Your task to perform on an android device: Clear all items from cart on newegg.com. Search for razer blackwidow on newegg.com, select the first entry, and add it to the cart. Image 0: 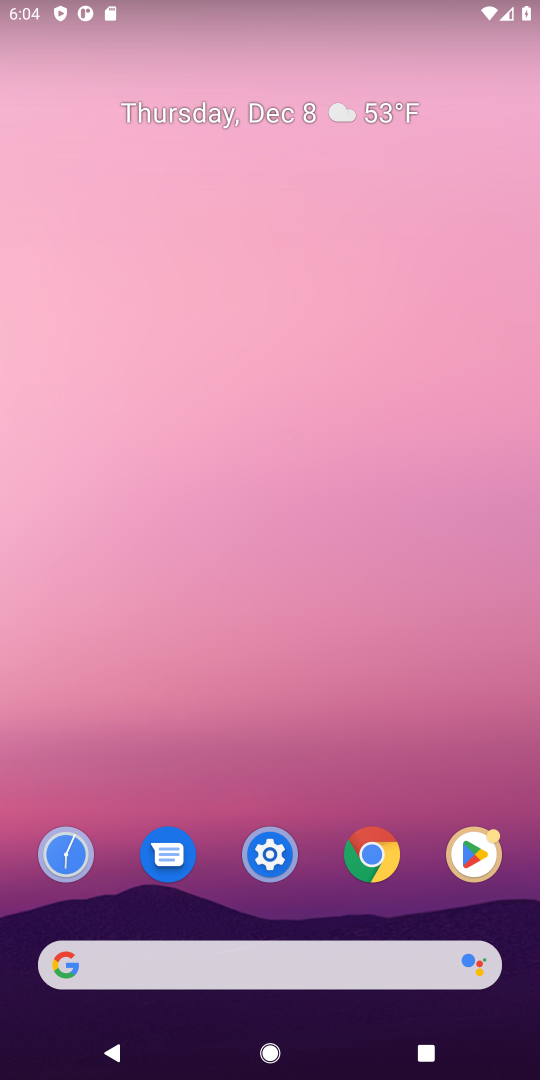
Step 0: click (109, 968)
Your task to perform on an android device: Clear all items from cart on newegg.com. Search for razer blackwidow on newegg.com, select the first entry, and add it to the cart. Image 1: 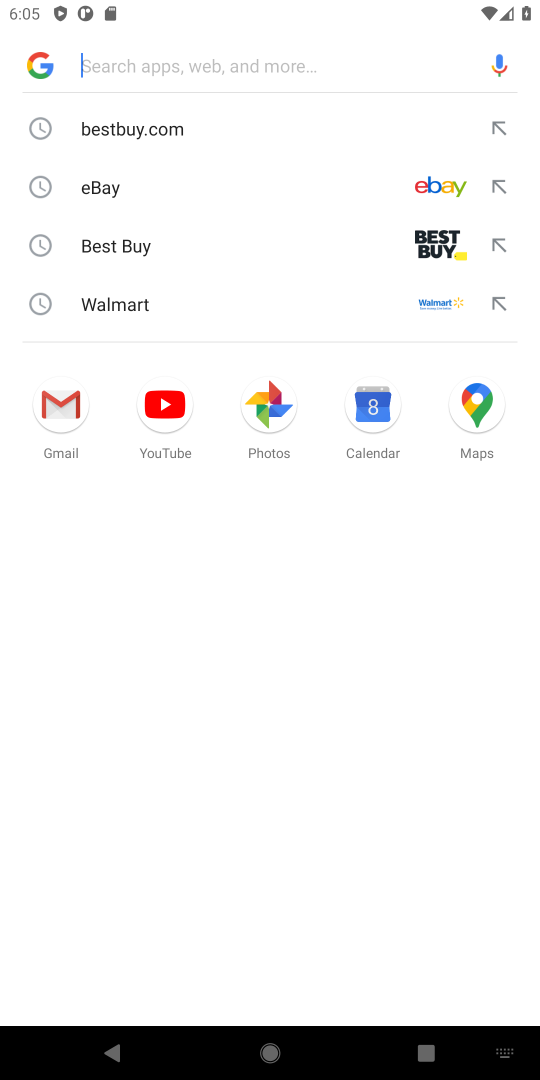
Step 1: type "newegg.com"
Your task to perform on an android device: Clear all items from cart on newegg.com. Search for razer blackwidow on newegg.com, select the first entry, and add it to the cart. Image 2: 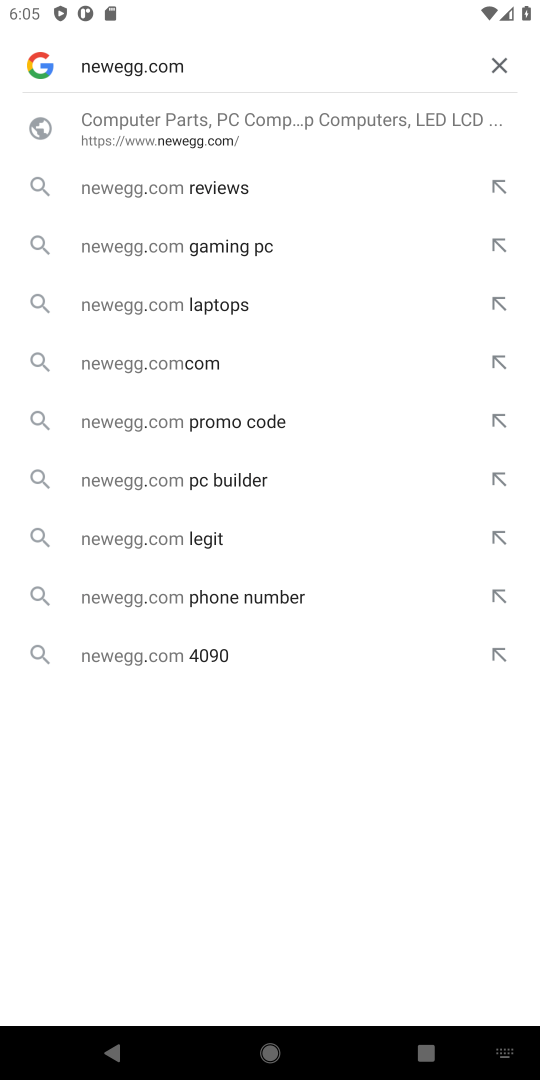
Step 2: press enter
Your task to perform on an android device: Clear all items from cart on newegg.com. Search for razer blackwidow on newegg.com, select the first entry, and add it to the cart. Image 3: 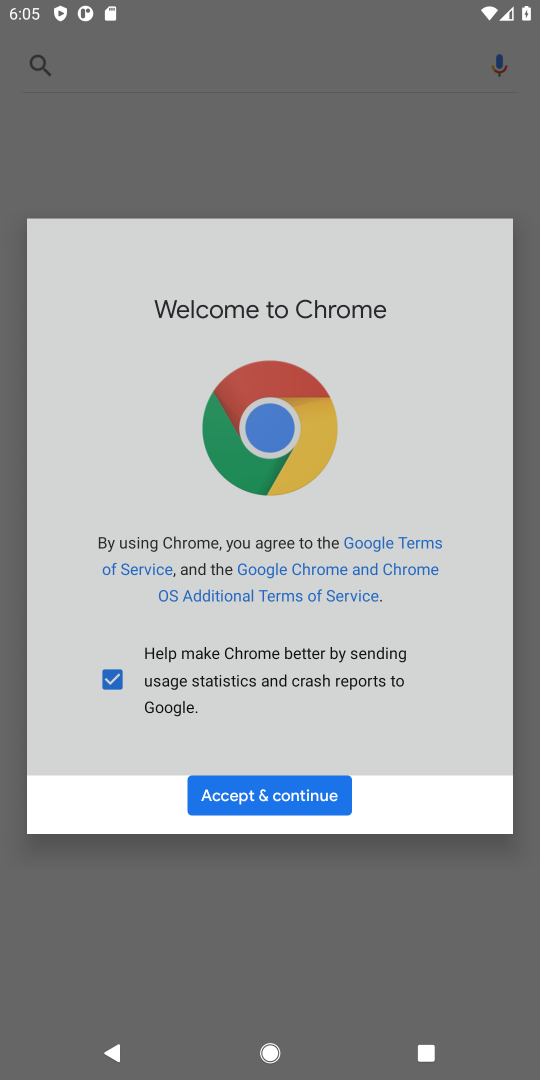
Step 3: click (284, 810)
Your task to perform on an android device: Clear all items from cart on newegg.com. Search for razer blackwidow on newegg.com, select the first entry, and add it to the cart. Image 4: 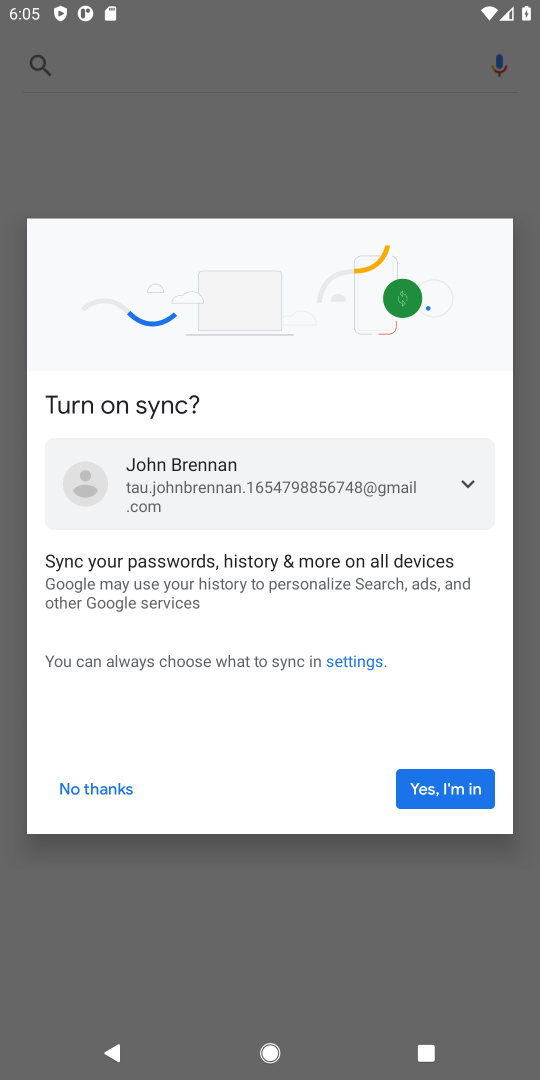
Step 4: click (428, 787)
Your task to perform on an android device: Clear all items from cart on newegg.com. Search for razer blackwidow on newegg.com, select the first entry, and add it to the cart. Image 5: 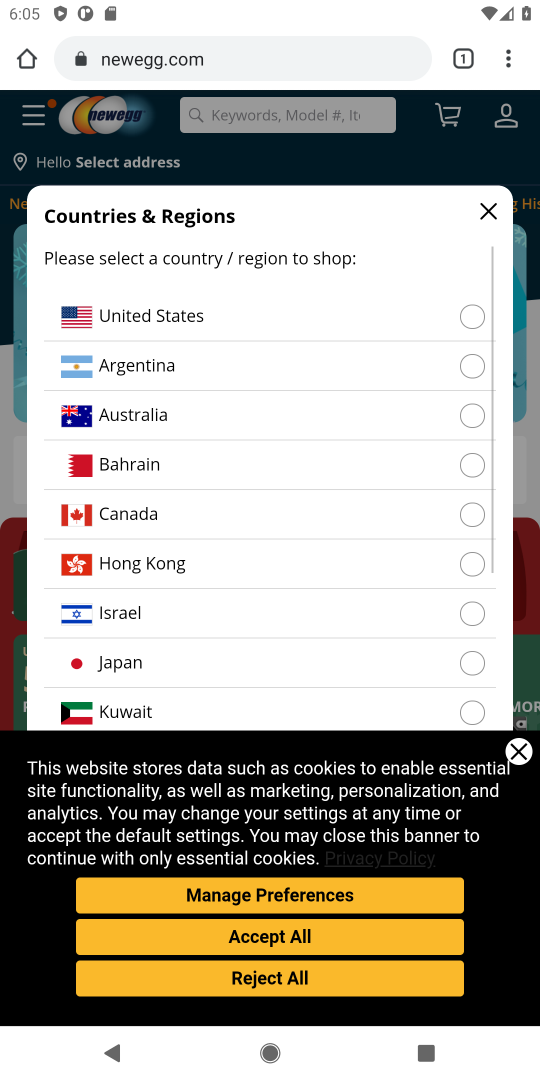
Step 5: click (522, 752)
Your task to perform on an android device: Clear all items from cart on newegg.com. Search for razer blackwidow on newegg.com, select the first entry, and add it to the cart. Image 6: 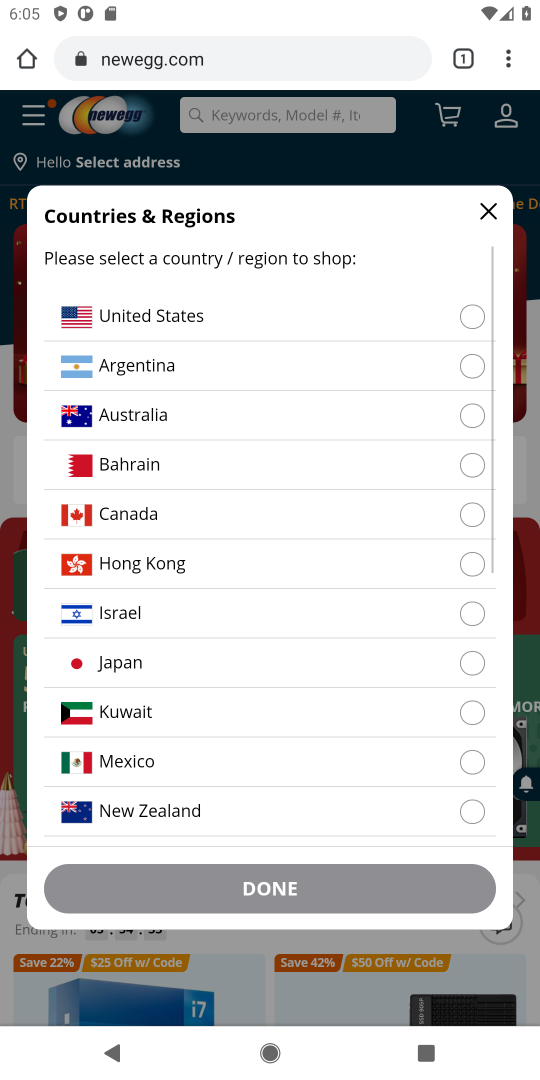
Step 6: click (491, 203)
Your task to perform on an android device: Clear all items from cart on newegg.com. Search for razer blackwidow on newegg.com, select the first entry, and add it to the cart. Image 7: 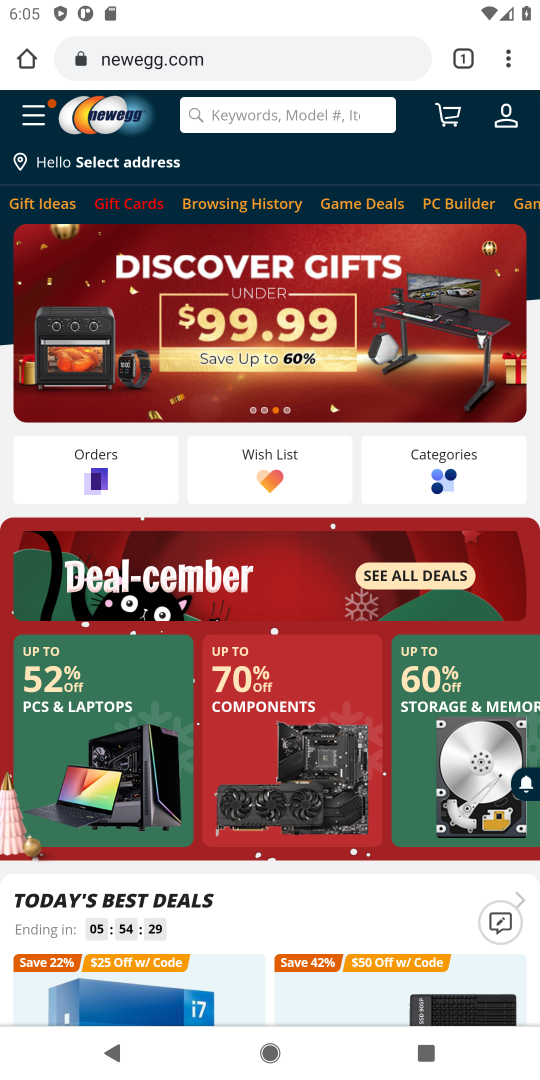
Step 7: click (442, 113)
Your task to perform on an android device: Clear all items from cart on newegg.com. Search for razer blackwidow on newegg.com, select the first entry, and add it to the cart. Image 8: 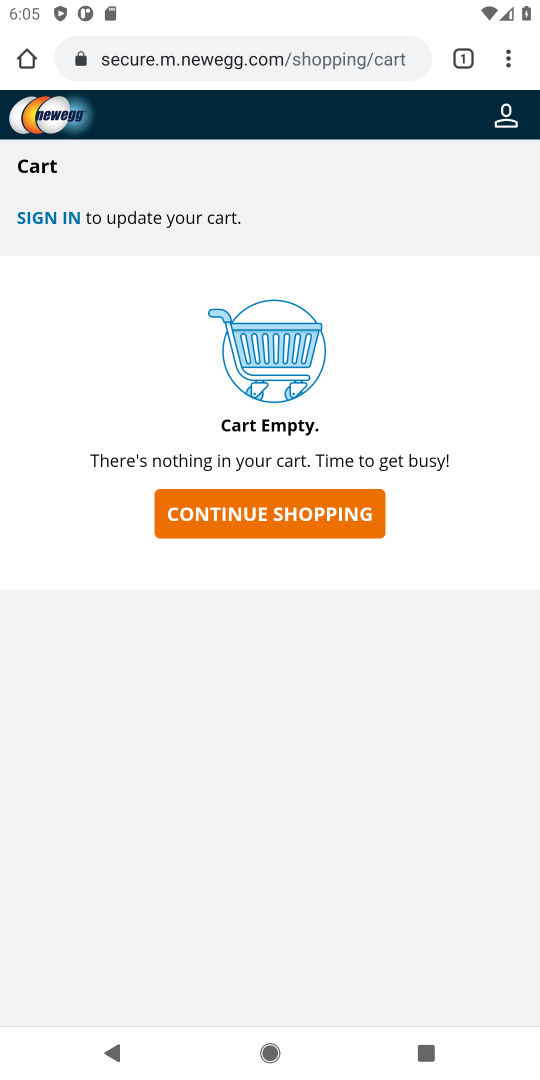
Step 8: press back button
Your task to perform on an android device: Clear all items from cart on newegg.com. Search for razer blackwidow on newegg.com, select the first entry, and add it to the cart. Image 9: 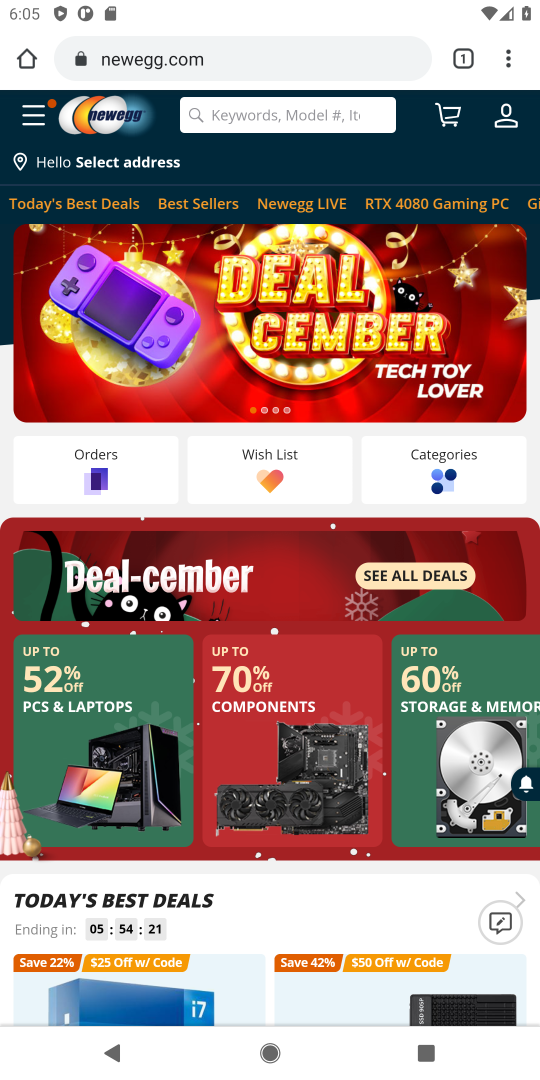
Step 9: click (220, 114)
Your task to perform on an android device: Clear all items from cart on newegg.com. Search for razer blackwidow on newegg.com, select the first entry, and add it to the cart. Image 10: 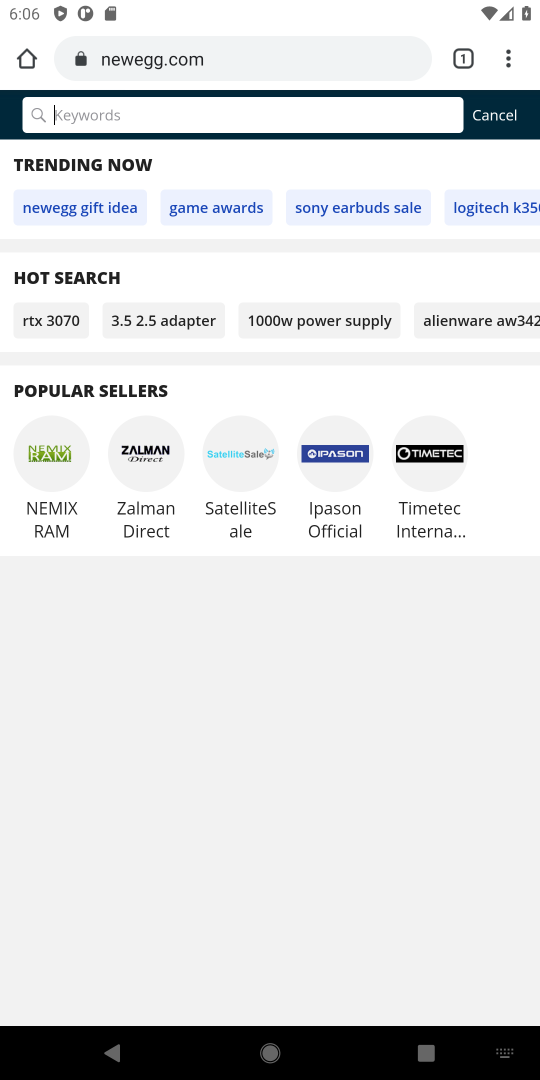
Step 10: press enter
Your task to perform on an android device: Clear all items from cart on newegg.com. Search for razer blackwidow on newegg.com, select the first entry, and add it to the cart. Image 11: 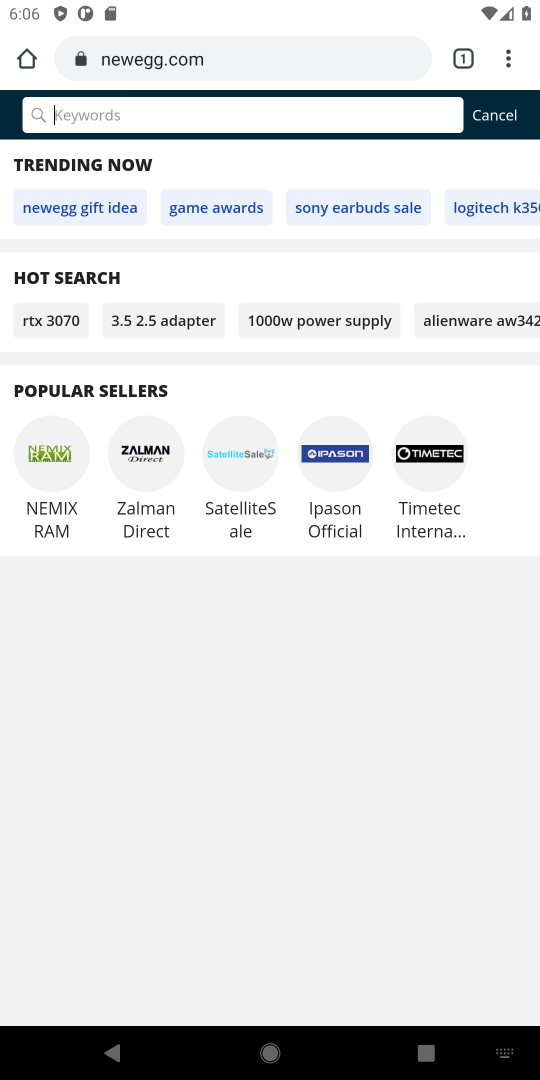
Step 11: type "razer blackwidow"
Your task to perform on an android device: Clear all items from cart on newegg.com. Search for razer blackwidow on newegg.com, select the first entry, and add it to the cart. Image 12: 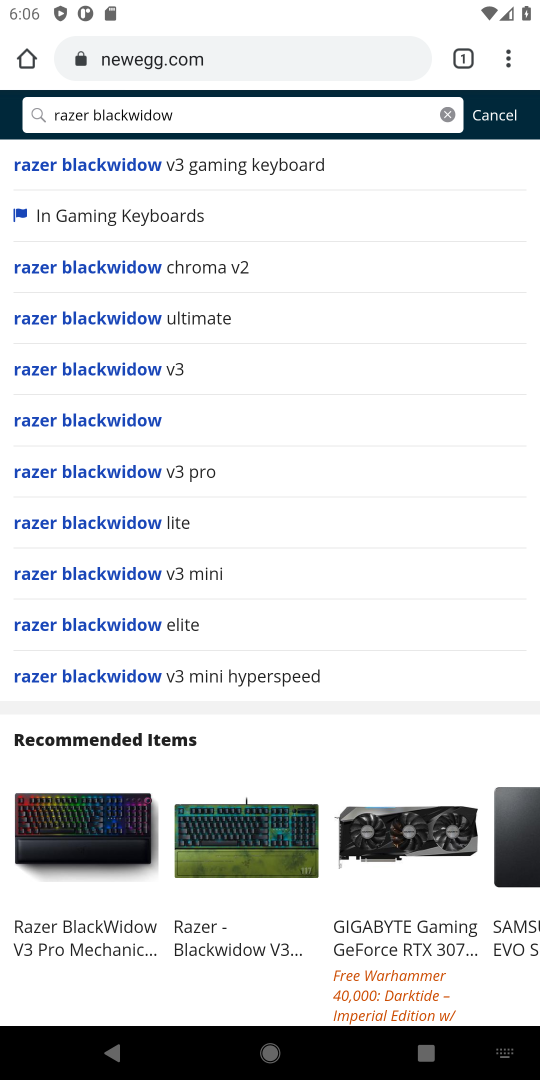
Step 12: click (153, 158)
Your task to perform on an android device: Clear all items from cart on newegg.com. Search for razer blackwidow on newegg.com, select the first entry, and add it to the cart. Image 13: 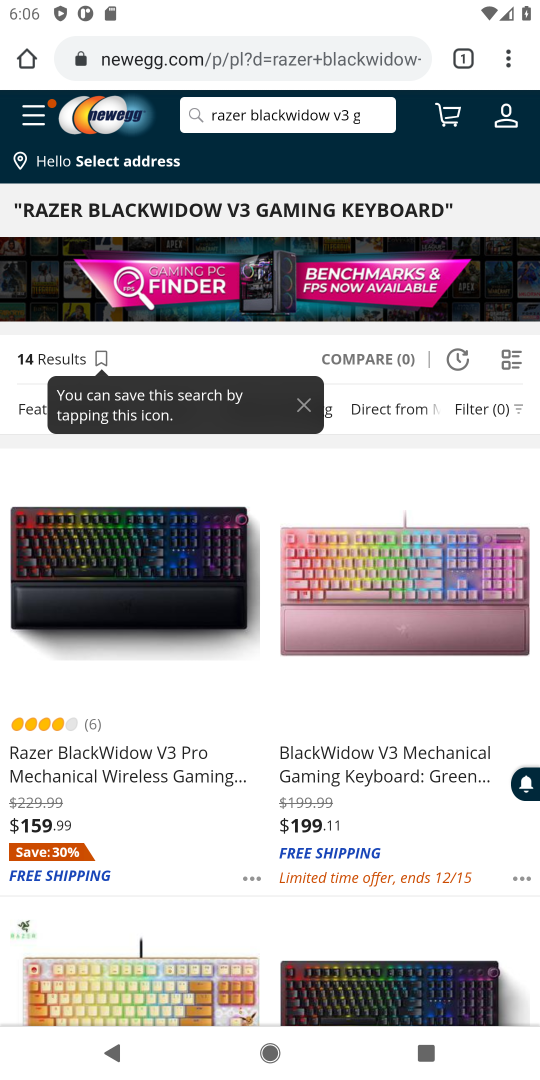
Step 13: click (76, 759)
Your task to perform on an android device: Clear all items from cart on newegg.com. Search for razer blackwidow on newegg.com, select the first entry, and add it to the cart. Image 14: 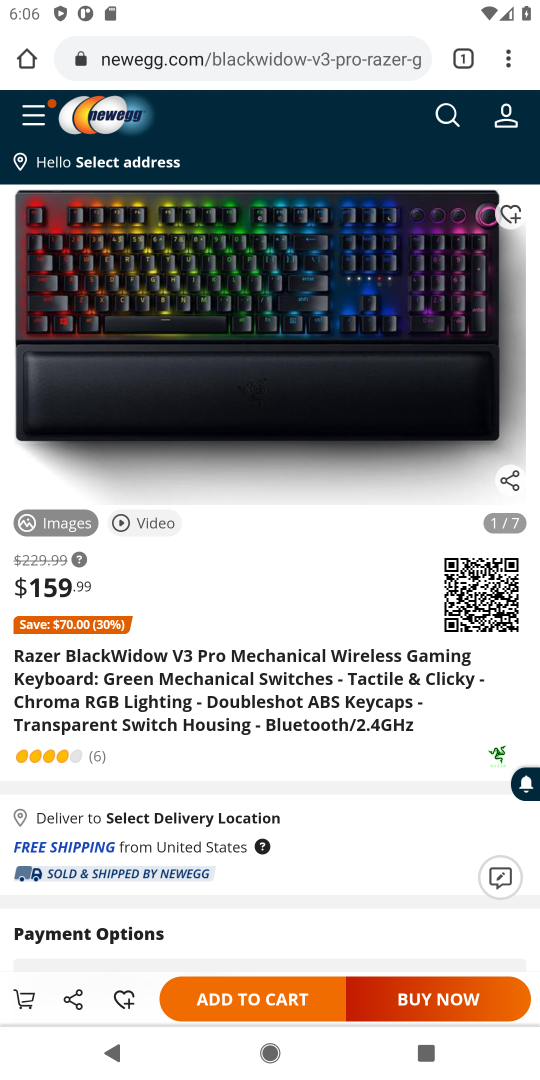
Step 14: click (266, 1000)
Your task to perform on an android device: Clear all items from cart on newegg.com. Search for razer blackwidow on newegg.com, select the first entry, and add it to the cart. Image 15: 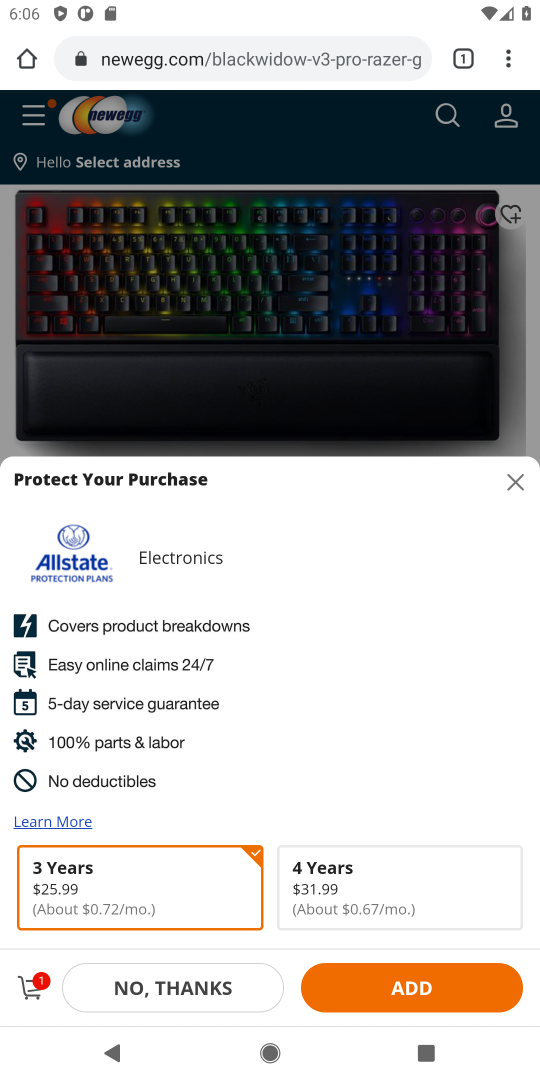
Step 15: task complete